Your task to perform on an android device: Open Android settings Image 0: 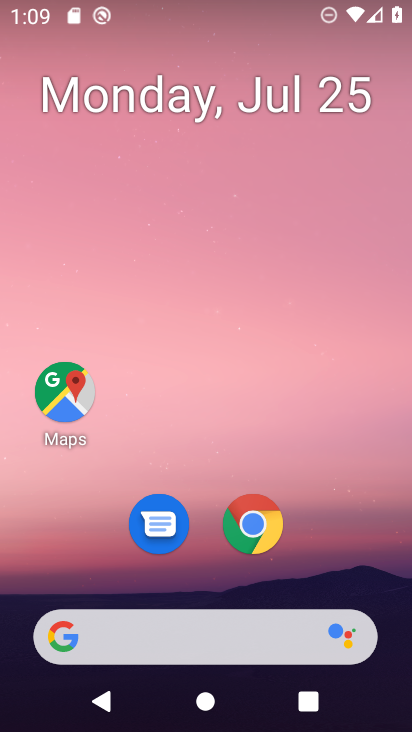
Step 0: drag from (291, 179) to (319, 12)
Your task to perform on an android device: Open Android settings Image 1: 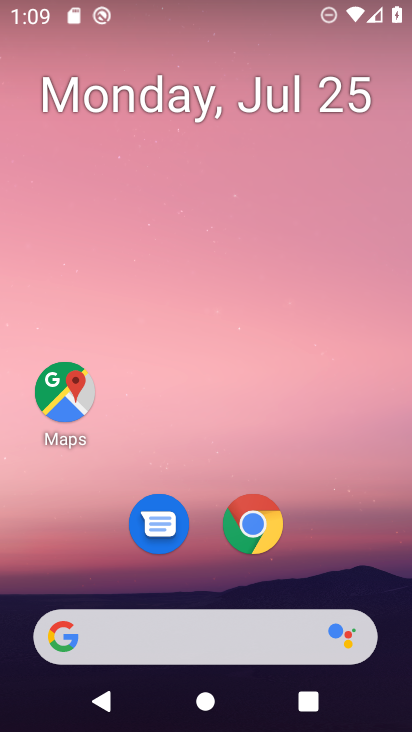
Step 1: drag from (220, 636) to (385, 2)
Your task to perform on an android device: Open Android settings Image 2: 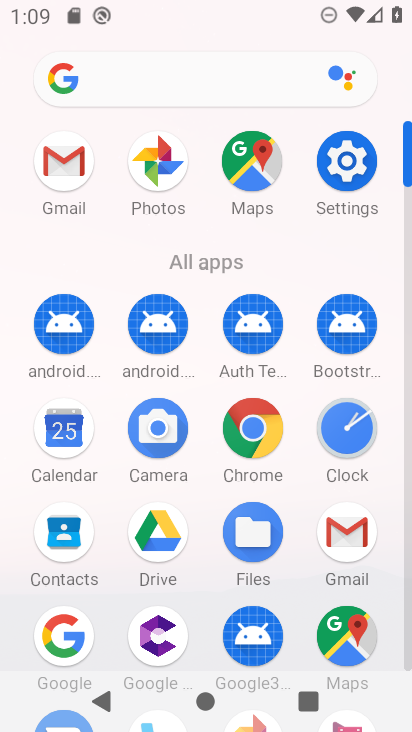
Step 2: click (349, 161)
Your task to perform on an android device: Open Android settings Image 3: 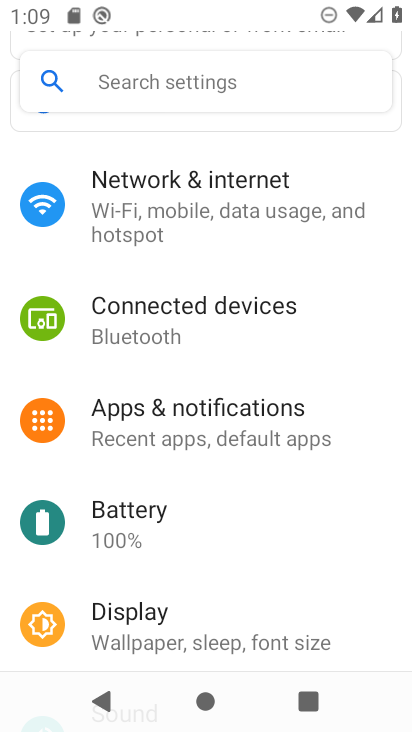
Step 3: task complete